Your task to perform on an android device: turn vacation reply on in the gmail app Image 0: 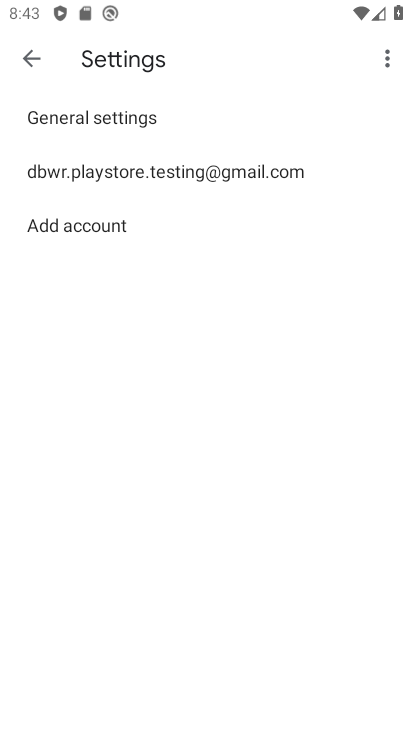
Step 0: drag from (208, 637) to (202, 206)
Your task to perform on an android device: turn vacation reply on in the gmail app Image 1: 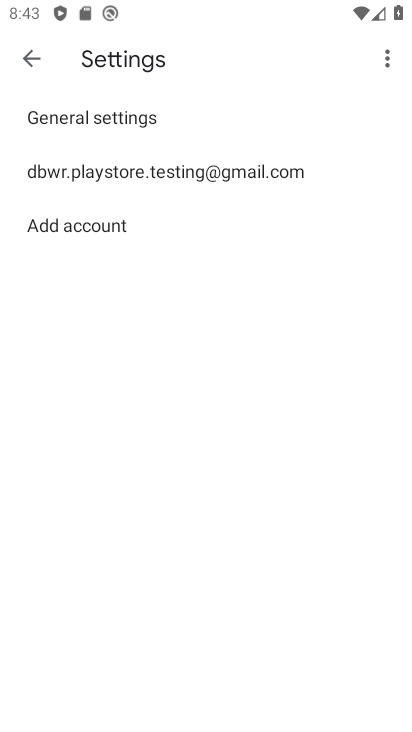
Step 1: press home button
Your task to perform on an android device: turn vacation reply on in the gmail app Image 2: 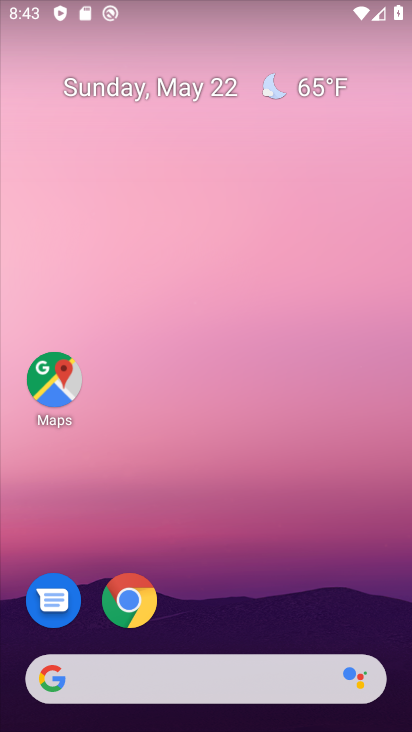
Step 2: drag from (217, 639) to (213, 243)
Your task to perform on an android device: turn vacation reply on in the gmail app Image 3: 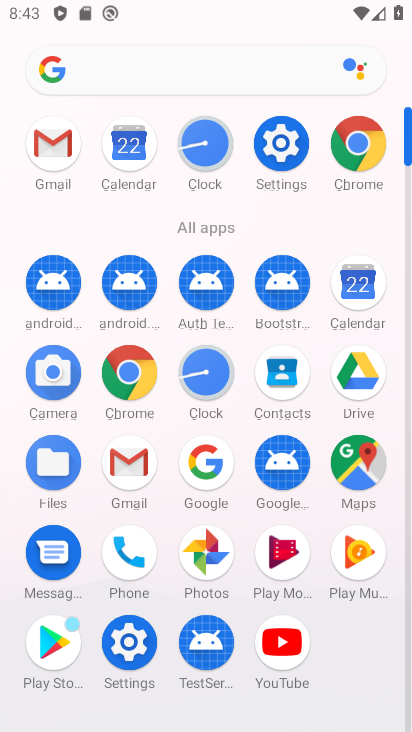
Step 3: click (47, 147)
Your task to perform on an android device: turn vacation reply on in the gmail app Image 4: 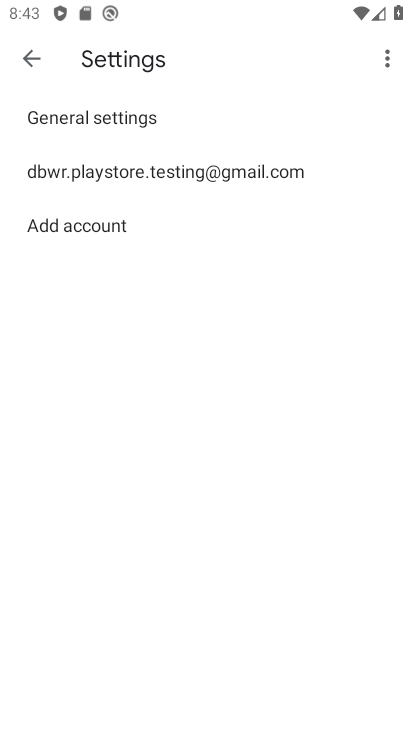
Step 4: click (142, 185)
Your task to perform on an android device: turn vacation reply on in the gmail app Image 5: 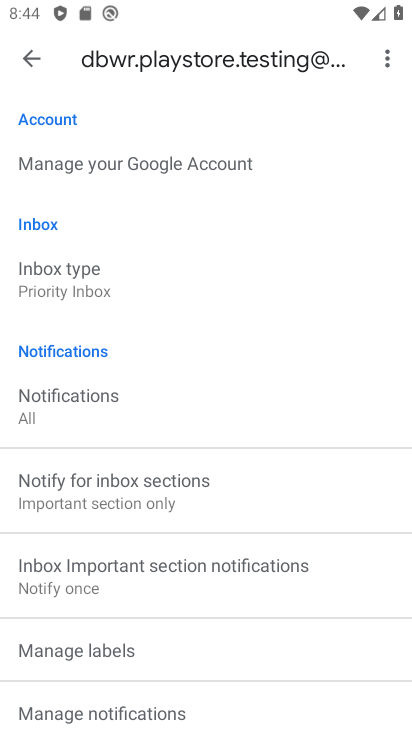
Step 5: drag from (155, 673) to (149, 375)
Your task to perform on an android device: turn vacation reply on in the gmail app Image 6: 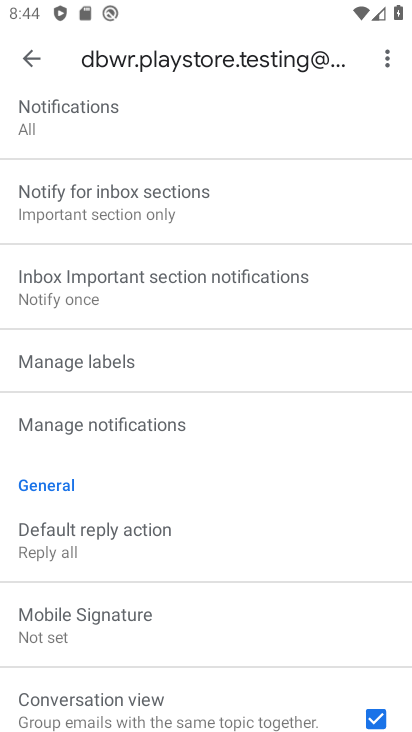
Step 6: drag from (150, 686) to (202, 364)
Your task to perform on an android device: turn vacation reply on in the gmail app Image 7: 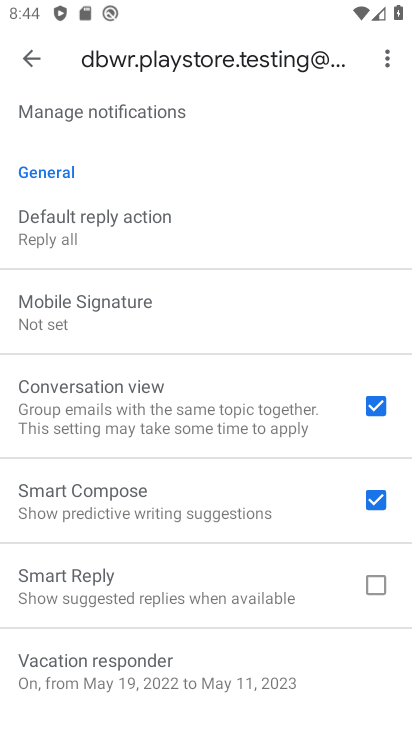
Step 7: click (168, 675)
Your task to perform on an android device: turn vacation reply on in the gmail app Image 8: 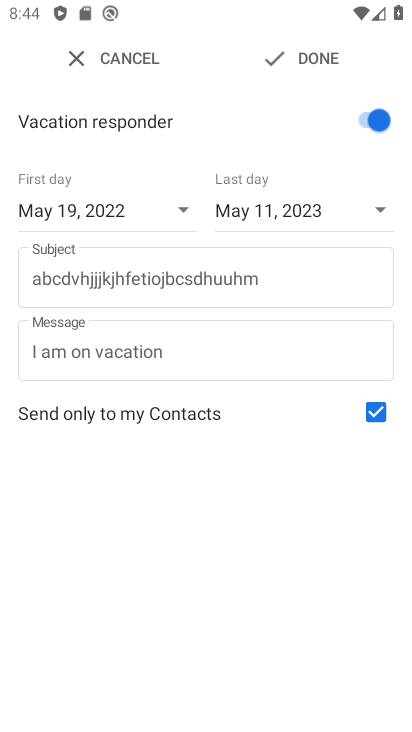
Step 8: task complete